Your task to perform on an android device: See recent photos Image 0: 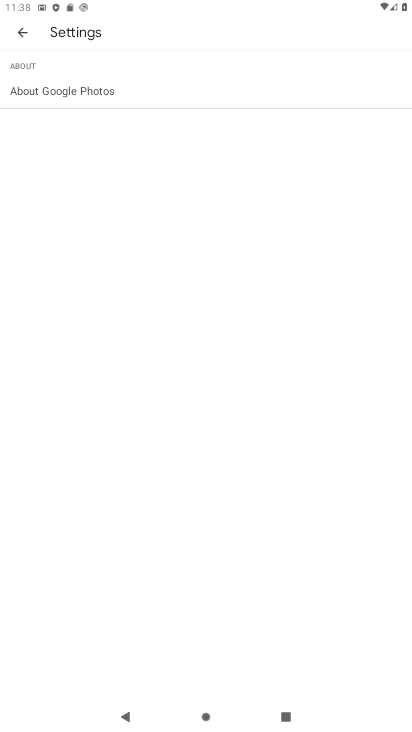
Step 0: press home button
Your task to perform on an android device: See recent photos Image 1: 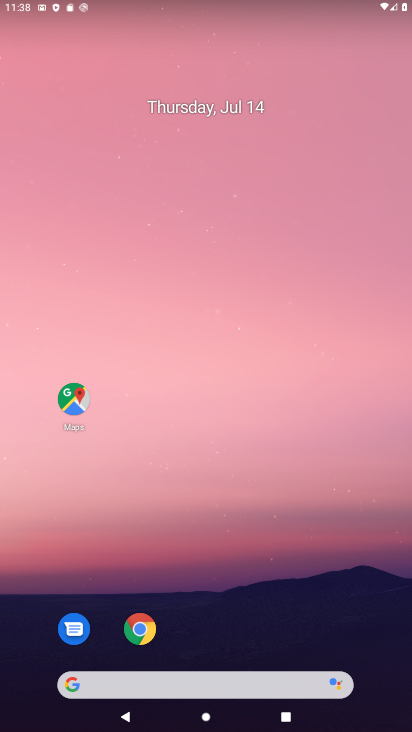
Step 1: drag from (175, 579) to (195, 178)
Your task to perform on an android device: See recent photos Image 2: 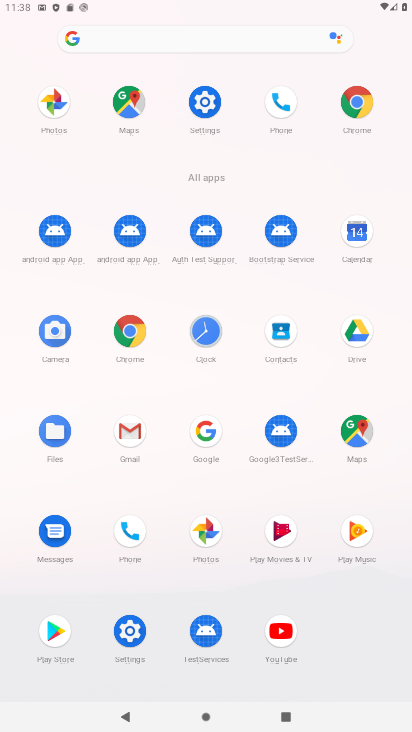
Step 2: click (202, 531)
Your task to perform on an android device: See recent photos Image 3: 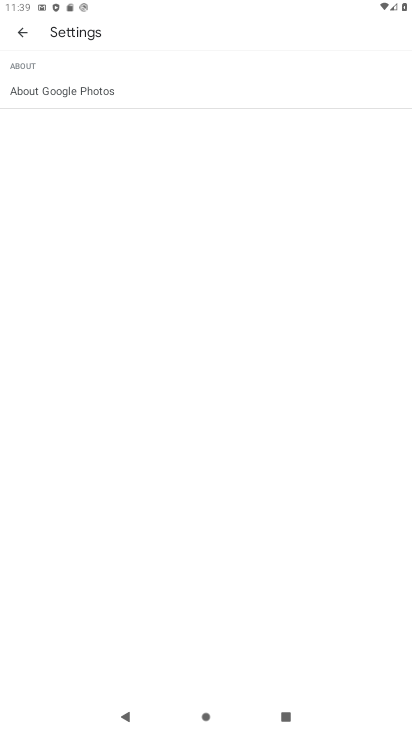
Step 3: press back button
Your task to perform on an android device: See recent photos Image 4: 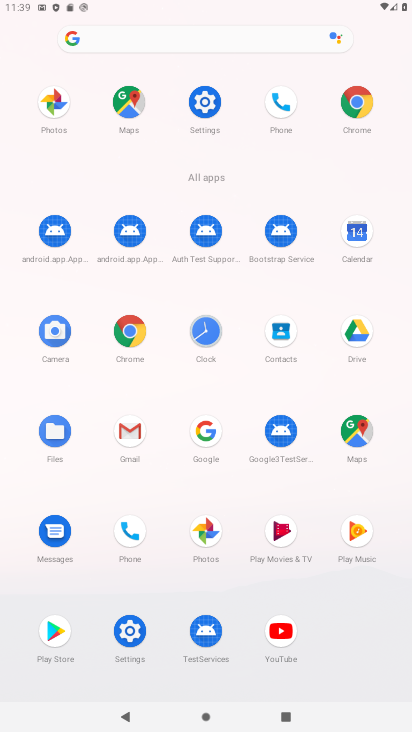
Step 4: click (185, 537)
Your task to perform on an android device: See recent photos Image 5: 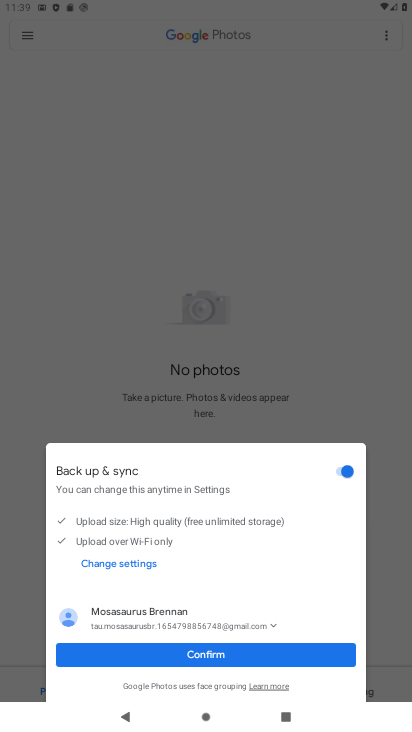
Step 5: click (194, 658)
Your task to perform on an android device: See recent photos Image 6: 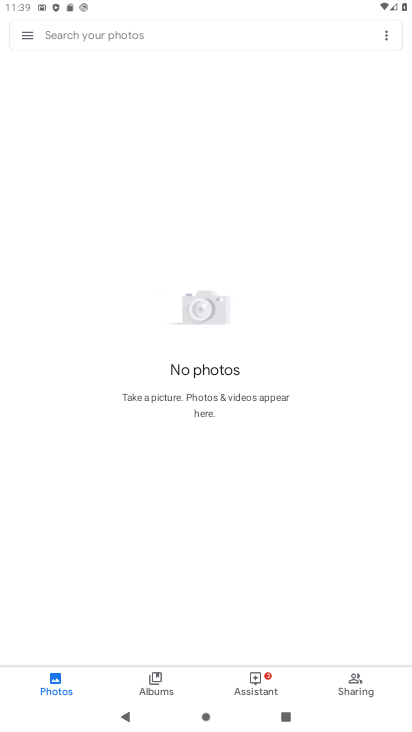
Step 6: task complete